Your task to perform on an android device: empty trash in the gmail app Image 0: 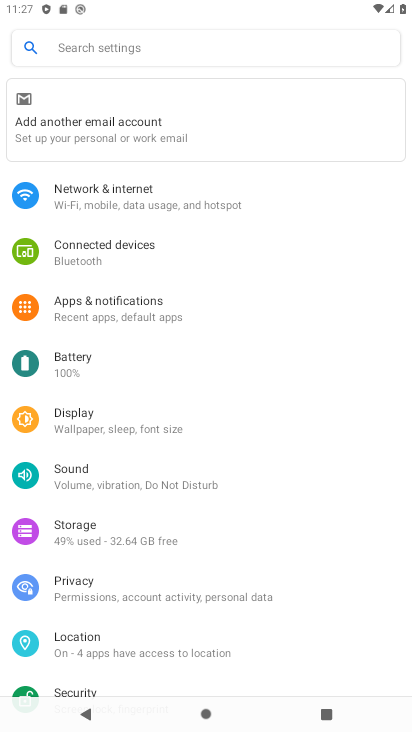
Step 0: press home button
Your task to perform on an android device: empty trash in the gmail app Image 1: 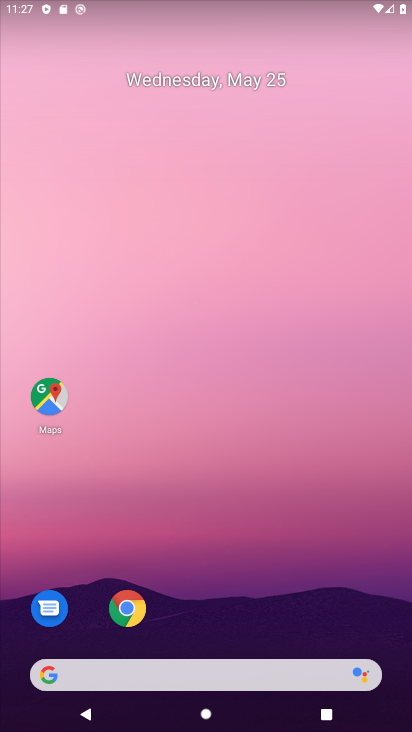
Step 1: drag from (269, 631) to (246, 217)
Your task to perform on an android device: empty trash in the gmail app Image 2: 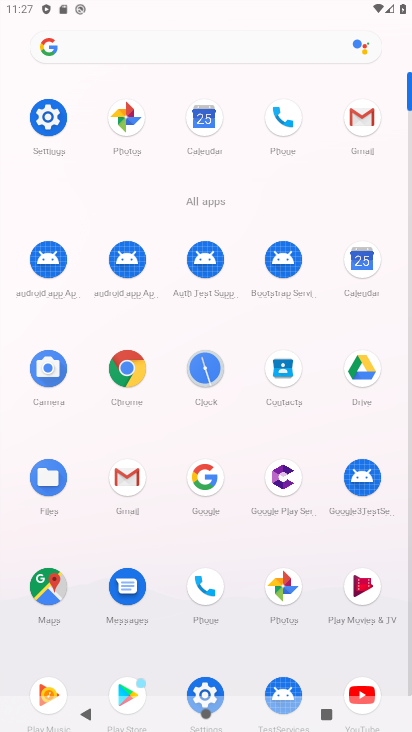
Step 2: drag from (203, 575) to (232, 136)
Your task to perform on an android device: empty trash in the gmail app Image 3: 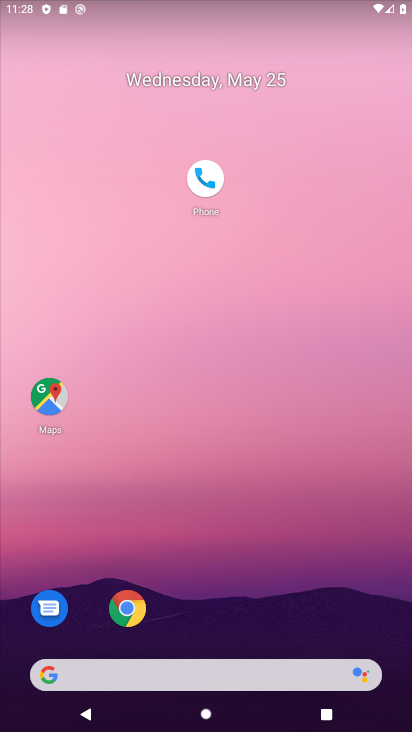
Step 3: click (372, 134)
Your task to perform on an android device: empty trash in the gmail app Image 4: 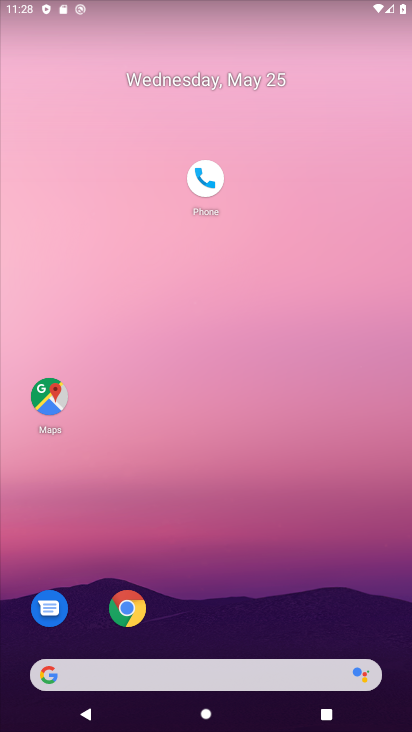
Step 4: drag from (221, 616) to (250, 274)
Your task to perform on an android device: empty trash in the gmail app Image 5: 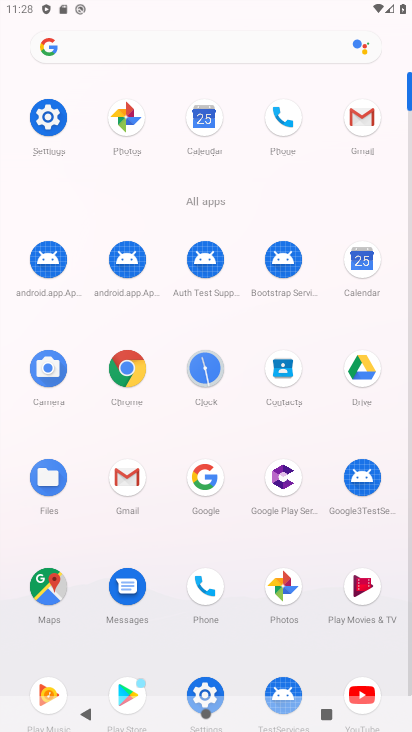
Step 5: click (374, 125)
Your task to perform on an android device: empty trash in the gmail app Image 6: 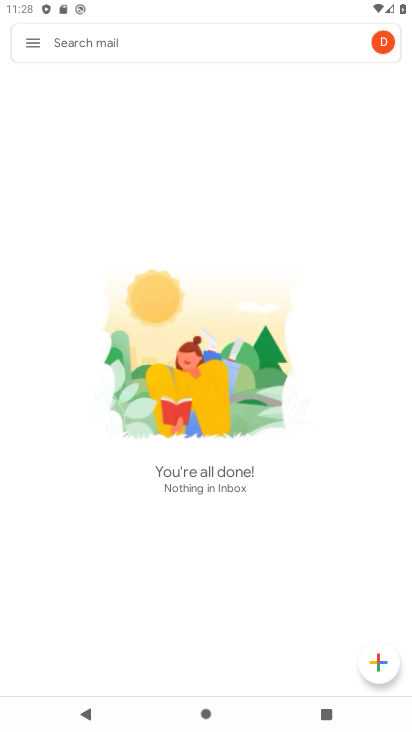
Step 6: click (30, 47)
Your task to perform on an android device: empty trash in the gmail app Image 7: 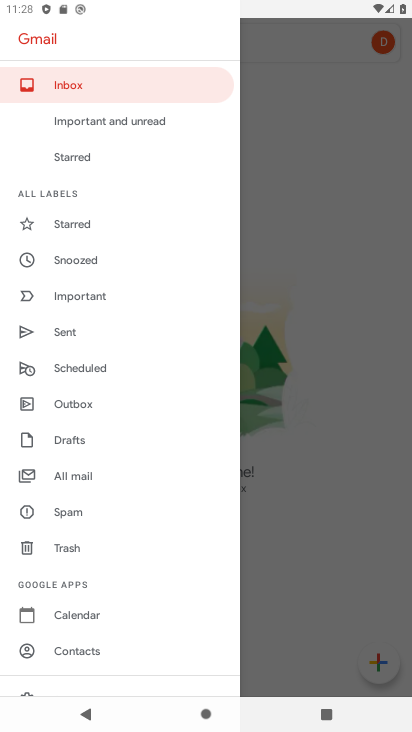
Step 7: click (69, 544)
Your task to perform on an android device: empty trash in the gmail app Image 8: 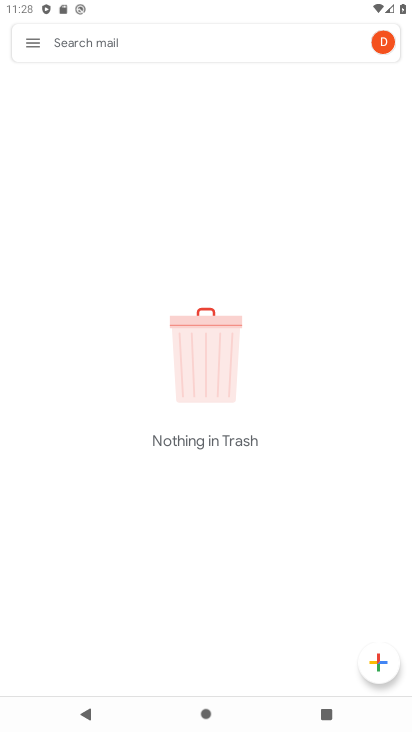
Step 8: task complete